Your task to perform on an android device: check battery use Image 0: 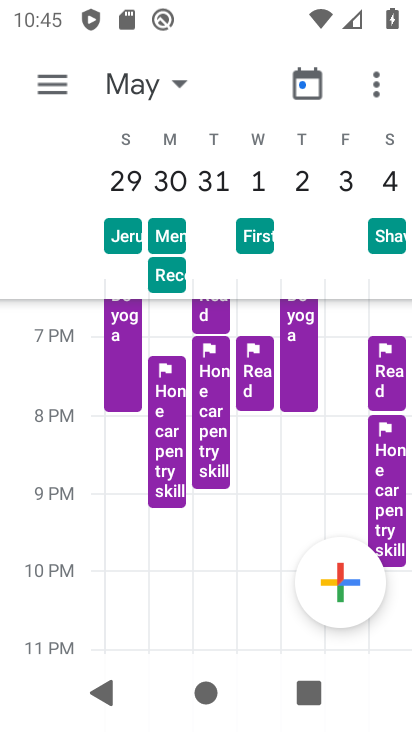
Step 0: press home button
Your task to perform on an android device: check battery use Image 1: 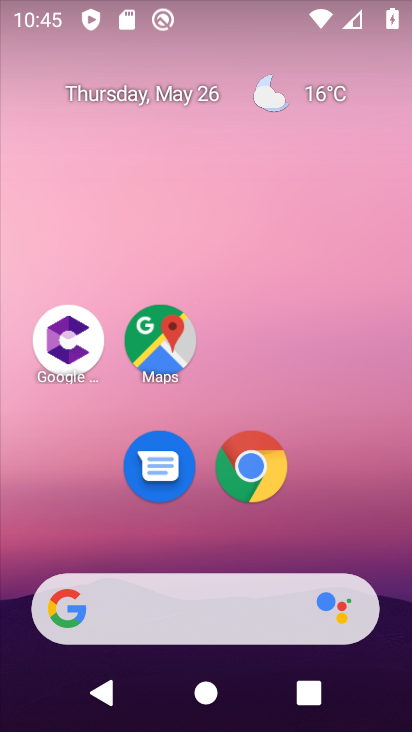
Step 1: drag from (331, 502) to (237, 105)
Your task to perform on an android device: check battery use Image 2: 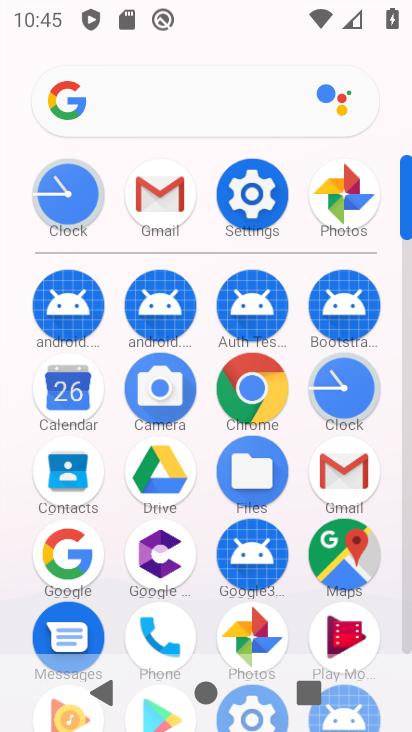
Step 2: click (246, 186)
Your task to perform on an android device: check battery use Image 3: 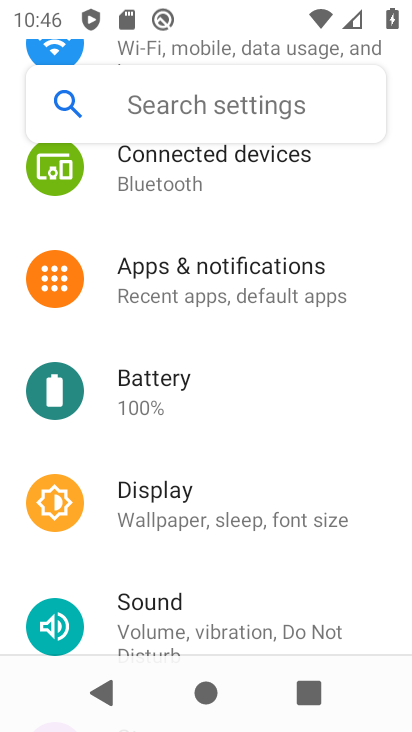
Step 3: click (157, 366)
Your task to perform on an android device: check battery use Image 4: 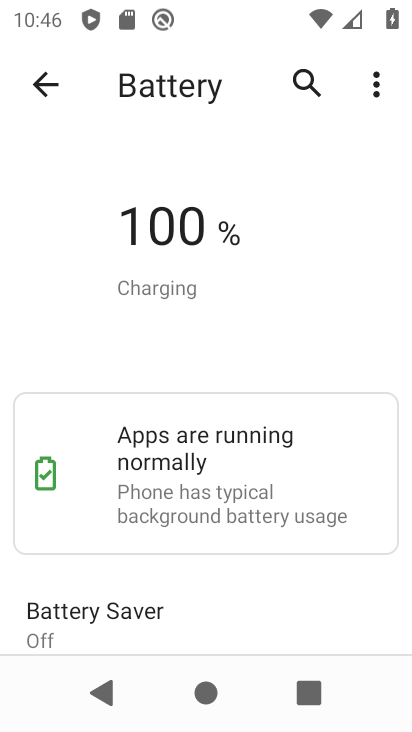
Step 4: task complete